Your task to perform on an android device: turn off wifi Image 0: 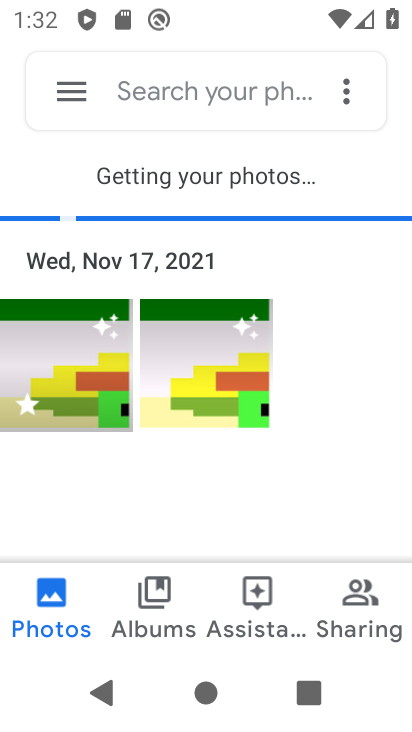
Step 0: press home button
Your task to perform on an android device: turn off wifi Image 1: 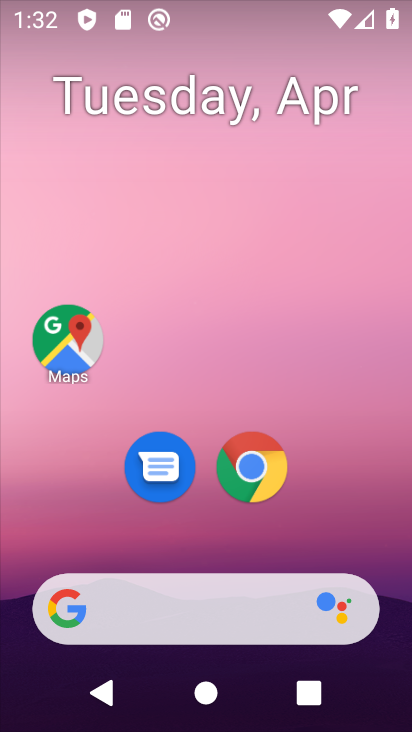
Step 1: drag from (367, 526) to (382, 118)
Your task to perform on an android device: turn off wifi Image 2: 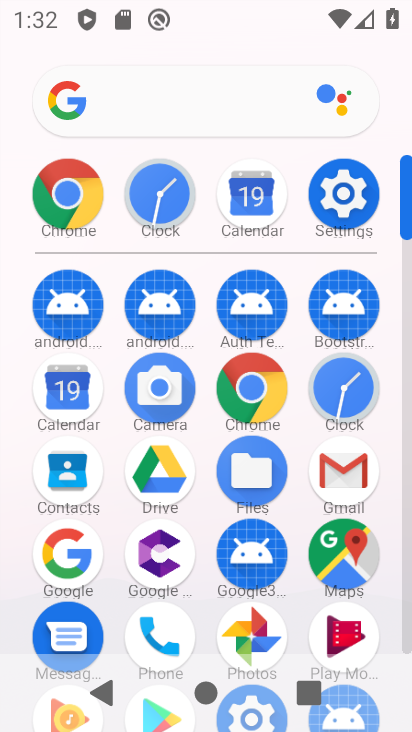
Step 2: click (327, 200)
Your task to perform on an android device: turn off wifi Image 3: 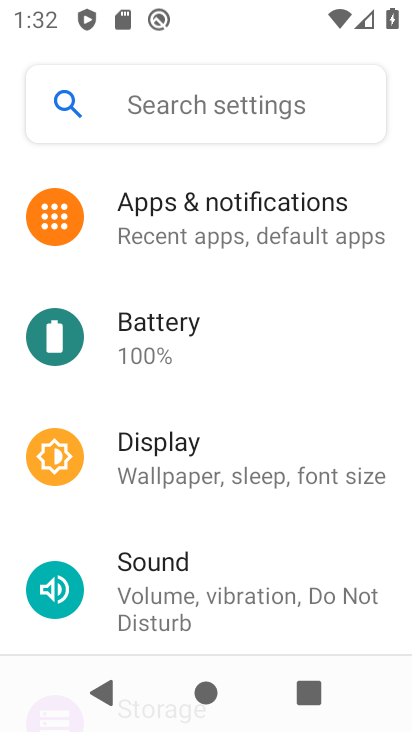
Step 3: drag from (389, 336) to (371, 466)
Your task to perform on an android device: turn off wifi Image 4: 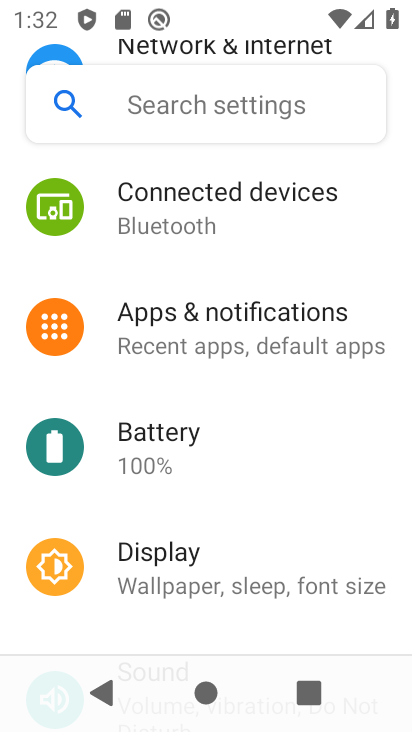
Step 4: drag from (378, 285) to (363, 473)
Your task to perform on an android device: turn off wifi Image 5: 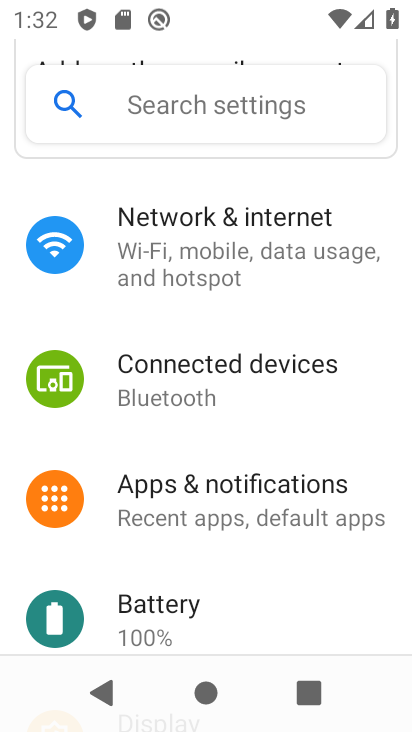
Step 5: drag from (372, 306) to (371, 465)
Your task to perform on an android device: turn off wifi Image 6: 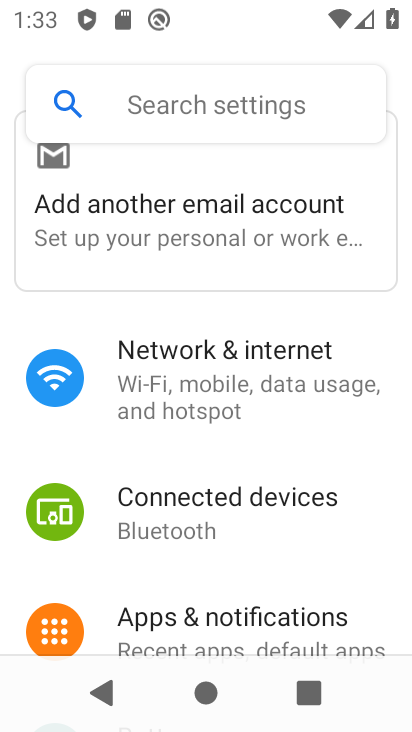
Step 6: click (223, 374)
Your task to perform on an android device: turn off wifi Image 7: 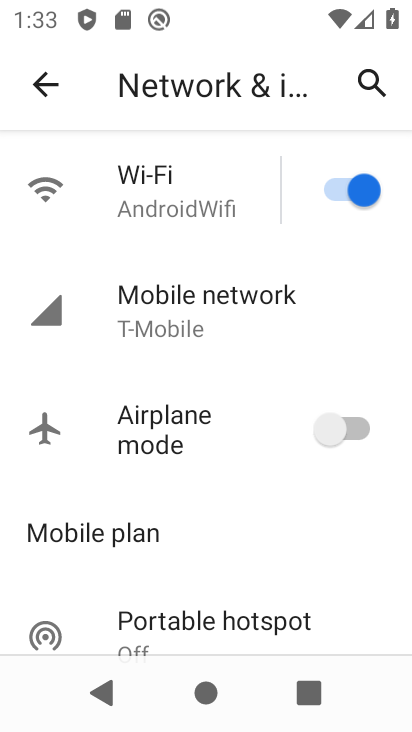
Step 7: click (332, 191)
Your task to perform on an android device: turn off wifi Image 8: 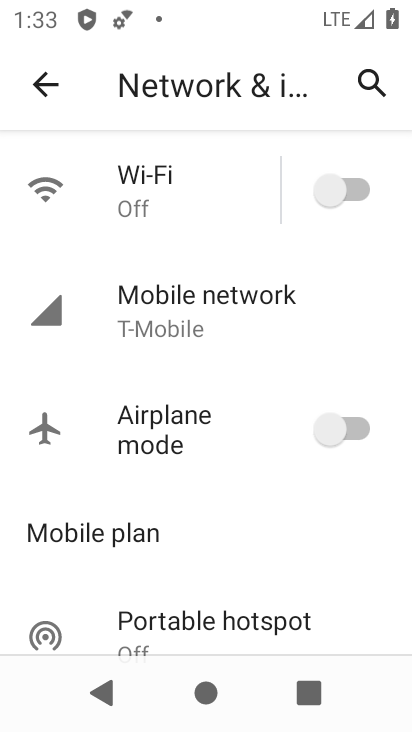
Step 8: task complete